Your task to perform on an android device: Go to Yahoo.com Image 0: 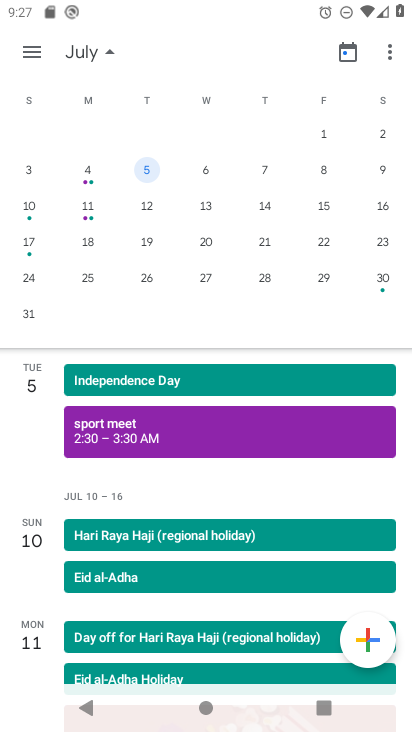
Step 0: press home button
Your task to perform on an android device: Go to Yahoo.com Image 1: 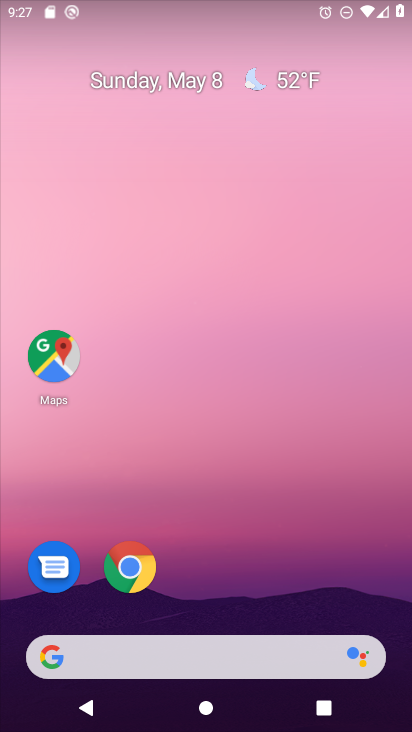
Step 1: drag from (353, 562) to (271, 126)
Your task to perform on an android device: Go to Yahoo.com Image 2: 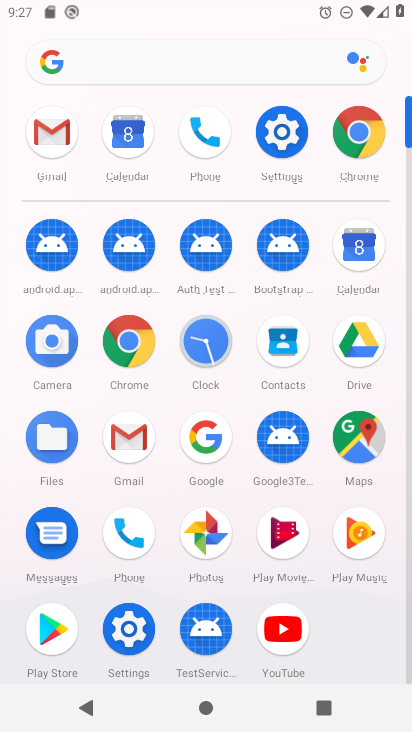
Step 2: click (128, 349)
Your task to perform on an android device: Go to Yahoo.com Image 3: 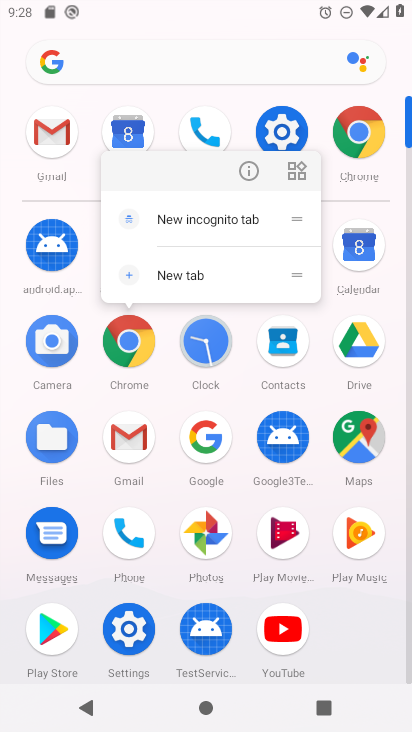
Step 3: click (360, 130)
Your task to perform on an android device: Go to Yahoo.com Image 4: 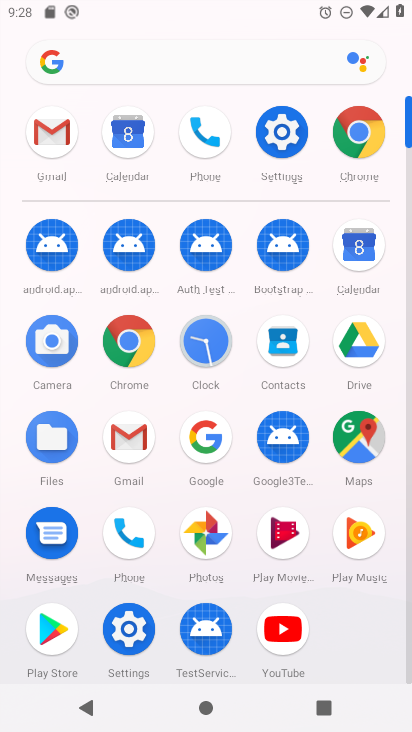
Step 4: click (360, 136)
Your task to perform on an android device: Go to Yahoo.com Image 5: 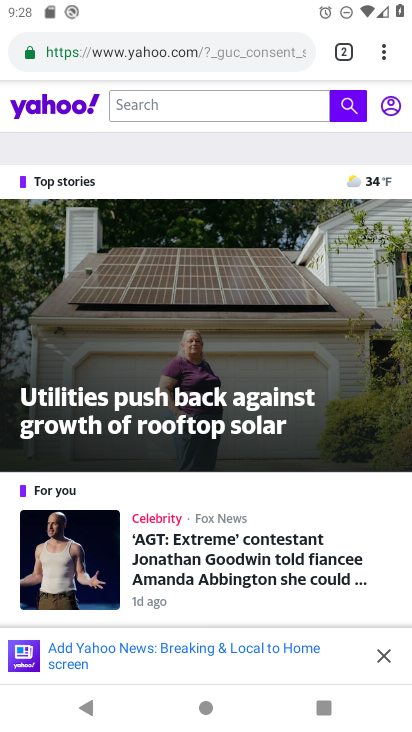
Step 5: task complete